Your task to perform on an android device: Show me the best rated coffee table on Ikea Image 0: 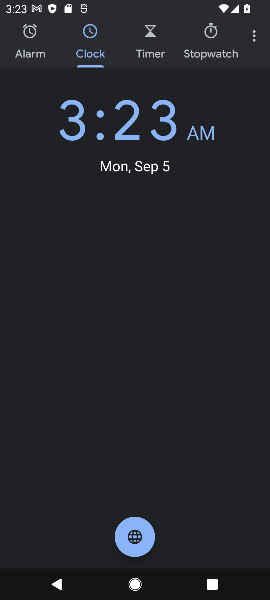
Step 0: press home button
Your task to perform on an android device: Show me the best rated coffee table on Ikea Image 1: 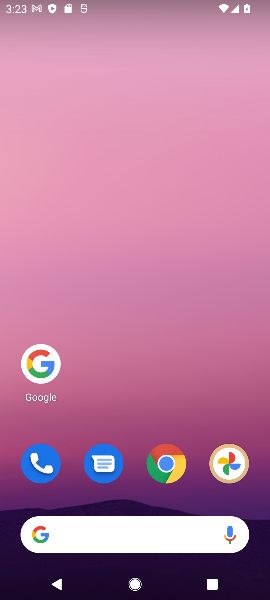
Step 1: click (39, 364)
Your task to perform on an android device: Show me the best rated coffee table on Ikea Image 2: 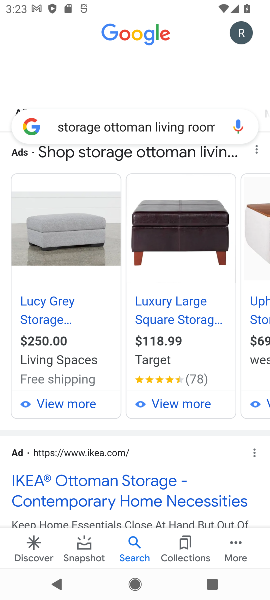
Step 2: click (188, 121)
Your task to perform on an android device: Show me the best rated coffee table on Ikea Image 3: 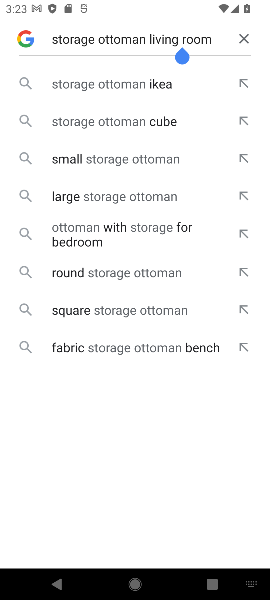
Step 3: click (240, 38)
Your task to perform on an android device: Show me the best rated coffee table on Ikea Image 4: 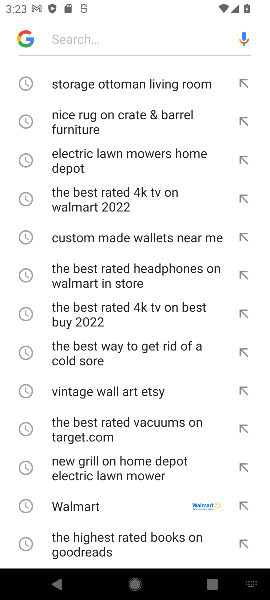
Step 4: click (115, 35)
Your task to perform on an android device: Show me the best rated coffee table on Ikea Image 5: 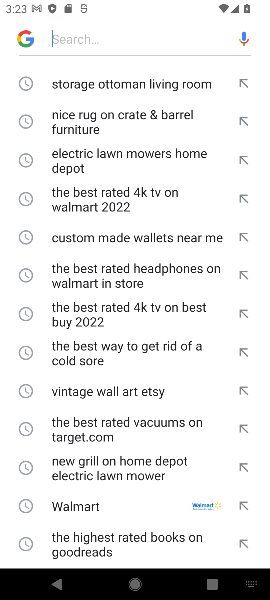
Step 5: type " the best rated coffee table on Ikea "
Your task to perform on an android device: Show me the best rated coffee table on Ikea Image 6: 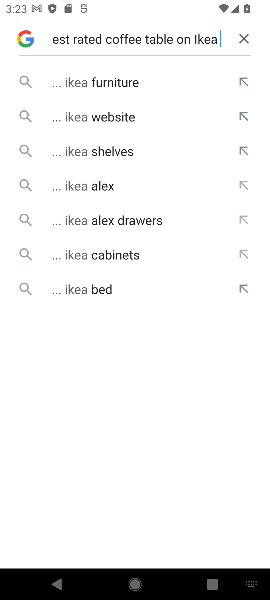
Step 6: click (110, 87)
Your task to perform on an android device: Show me the best rated coffee table on Ikea Image 7: 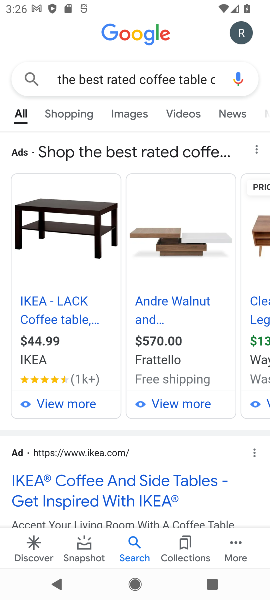
Step 7: task complete